Your task to perform on an android device: Open battery settings Image 0: 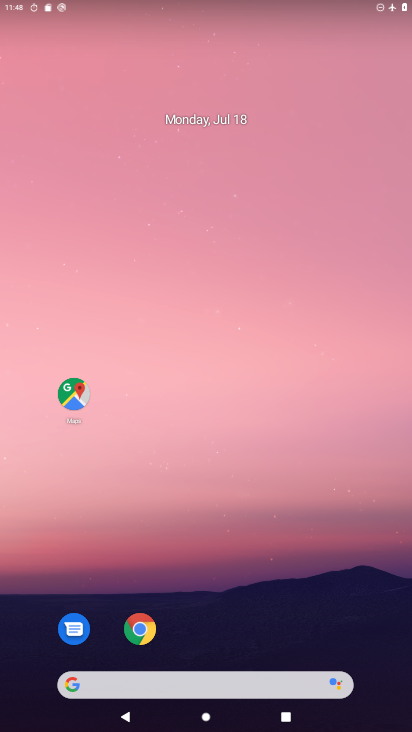
Step 0: drag from (311, 571) to (175, 57)
Your task to perform on an android device: Open battery settings Image 1: 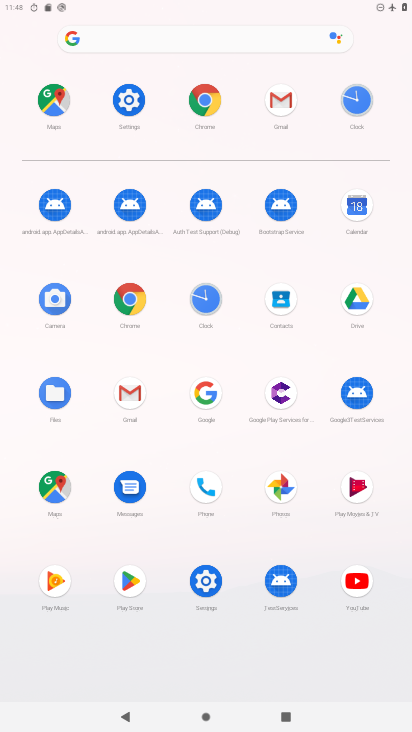
Step 1: click (117, 95)
Your task to perform on an android device: Open battery settings Image 2: 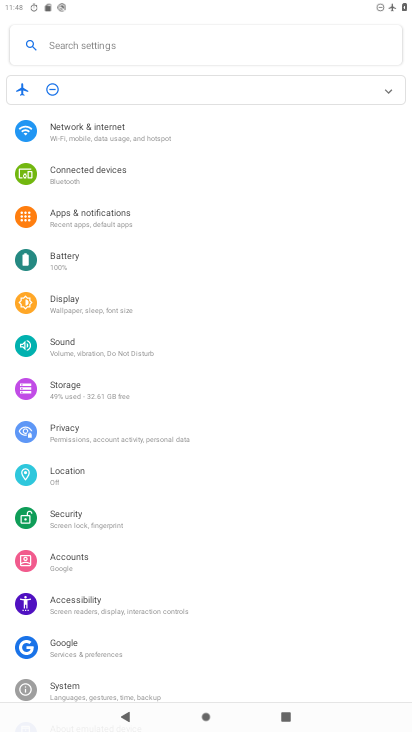
Step 2: click (73, 261)
Your task to perform on an android device: Open battery settings Image 3: 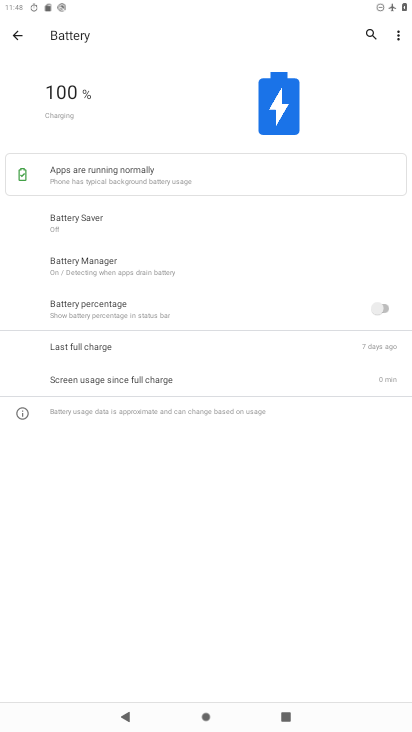
Step 3: task complete